Your task to perform on an android device: toggle sleep mode Image 0: 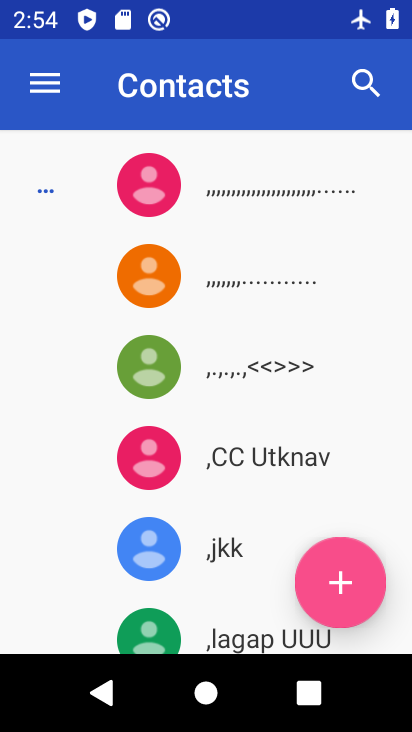
Step 0: press home button
Your task to perform on an android device: toggle sleep mode Image 1: 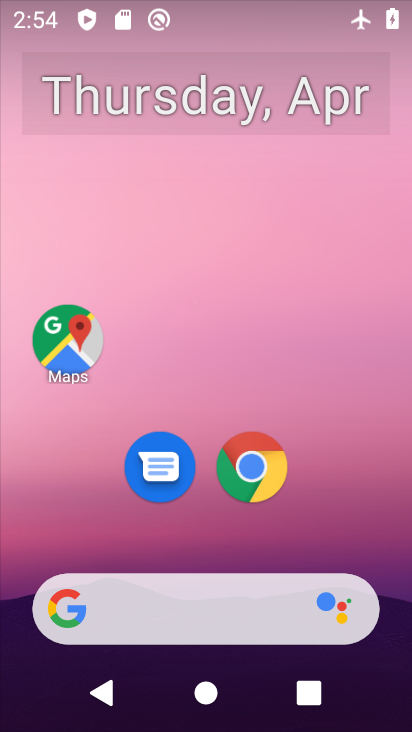
Step 1: drag from (333, 529) to (293, 155)
Your task to perform on an android device: toggle sleep mode Image 2: 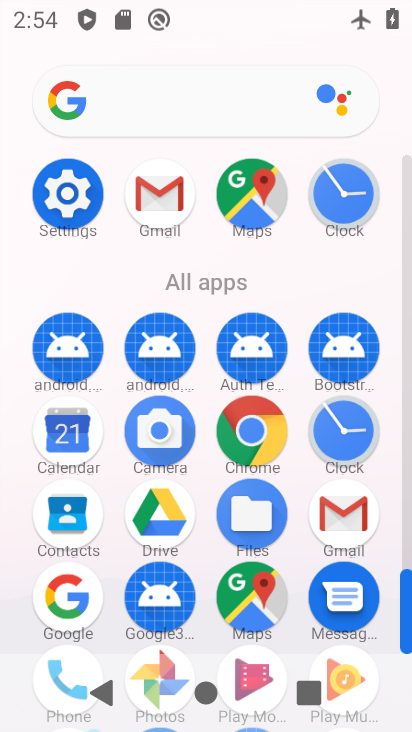
Step 2: click (79, 188)
Your task to perform on an android device: toggle sleep mode Image 3: 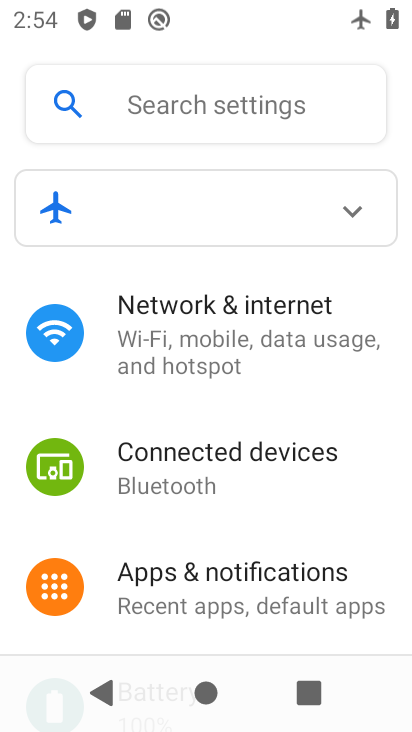
Step 3: click (231, 330)
Your task to perform on an android device: toggle sleep mode Image 4: 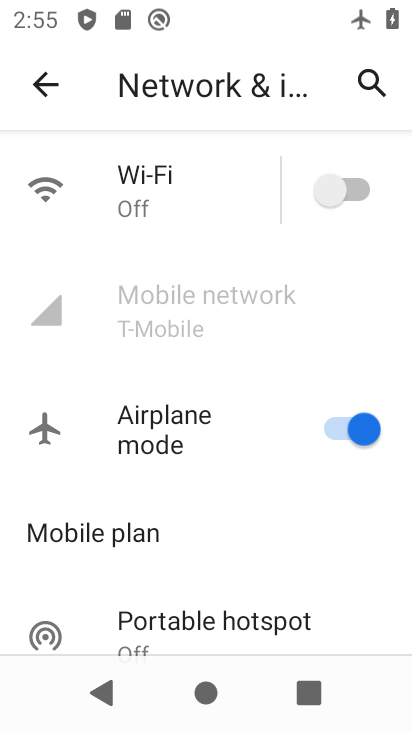
Step 4: click (329, 425)
Your task to perform on an android device: toggle sleep mode Image 5: 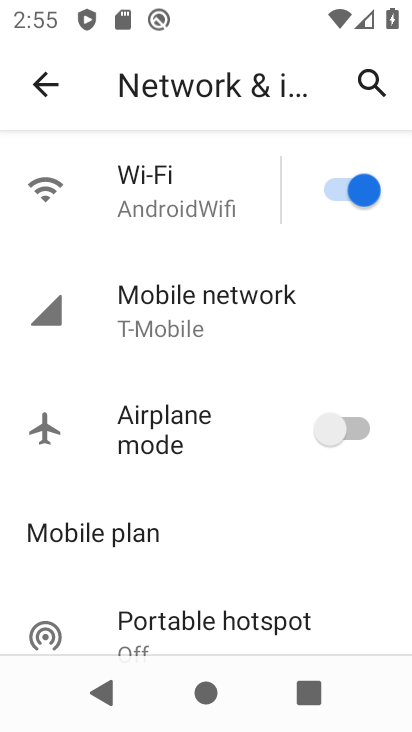
Step 5: click (40, 77)
Your task to perform on an android device: toggle sleep mode Image 6: 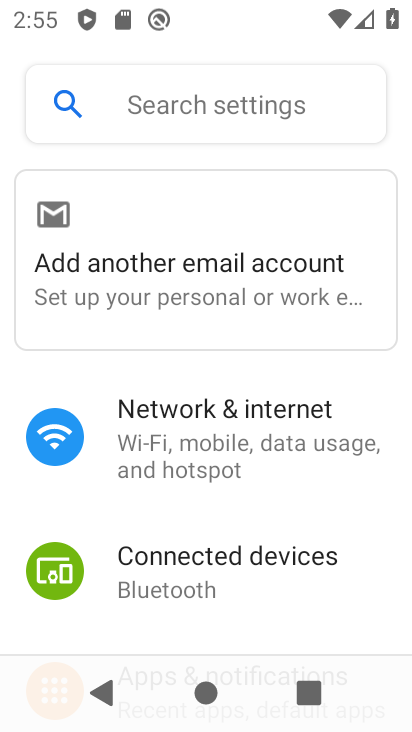
Step 6: drag from (244, 521) to (231, 217)
Your task to perform on an android device: toggle sleep mode Image 7: 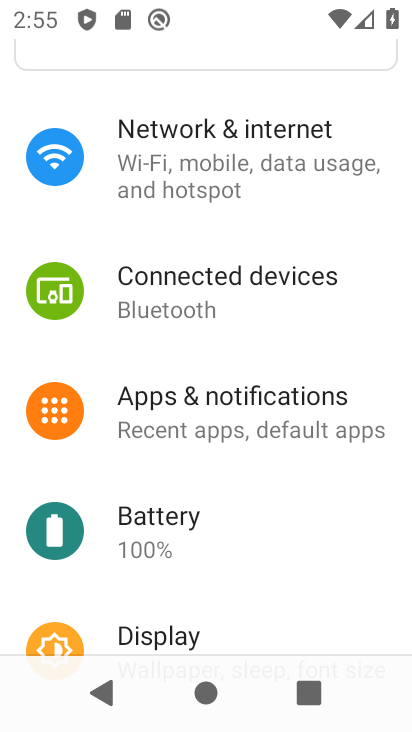
Step 7: drag from (274, 475) to (264, 121)
Your task to perform on an android device: toggle sleep mode Image 8: 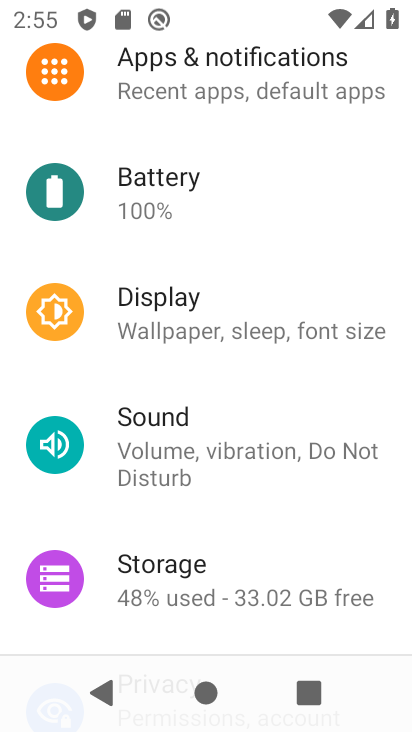
Step 8: click (264, 314)
Your task to perform on an android device: toggle sleep mode Image 9: 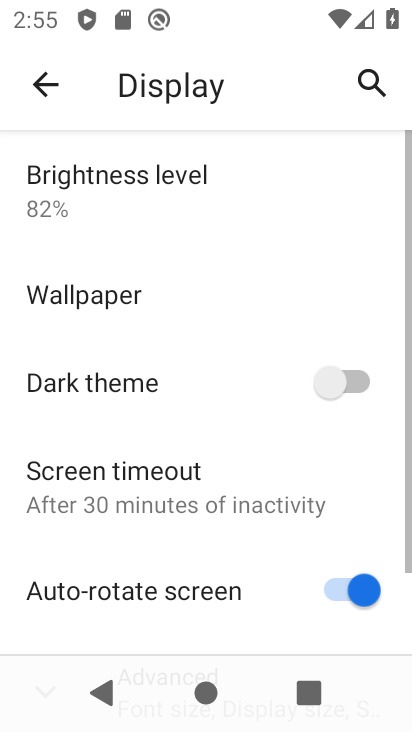
Step 9: task complete